Your task to perform on an android device: Go to Amazon Image 0: 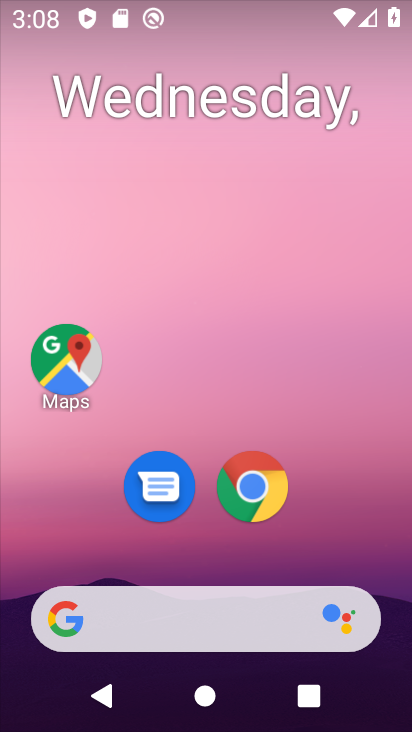
Step 0: click (260, 497)
Your task to perform on an android device: Go to Amazon Image 1: 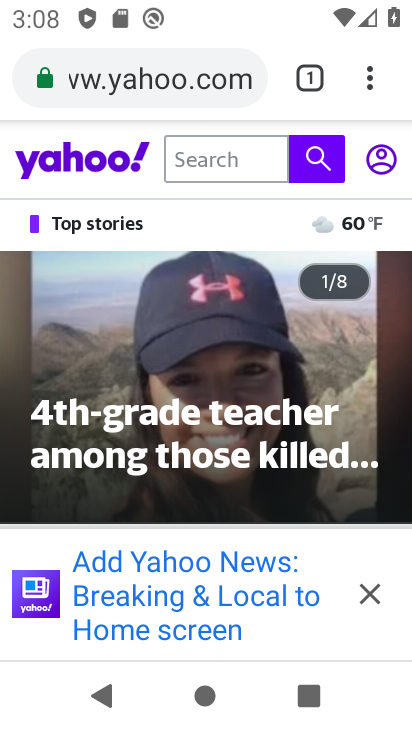
Step 1: click (308, 80)
Your task to perform on an android device: Go to Amazon Image 2: 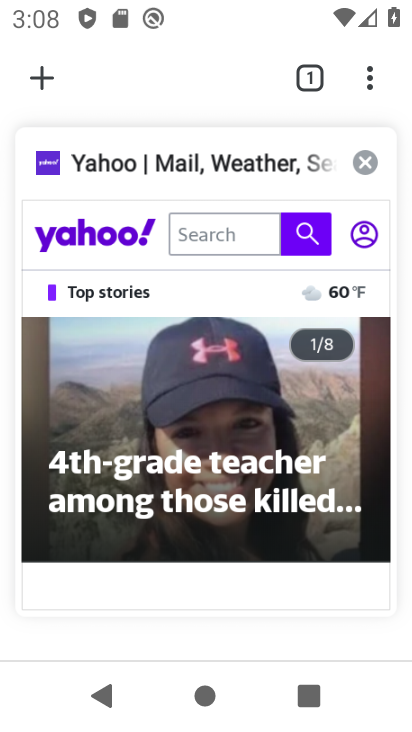
Step 2: click (364, 165)
Your task to perform on an android device: Go to Amazon Image 3: 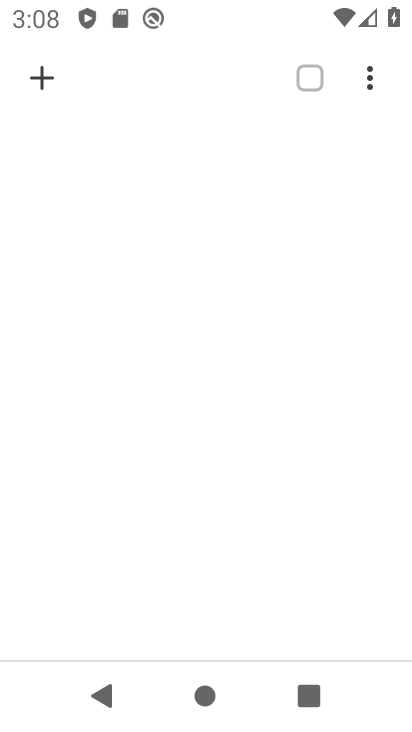
Step 3: click (36, 80)
Your task to perform on an android device: Go to Amazon Image 4: 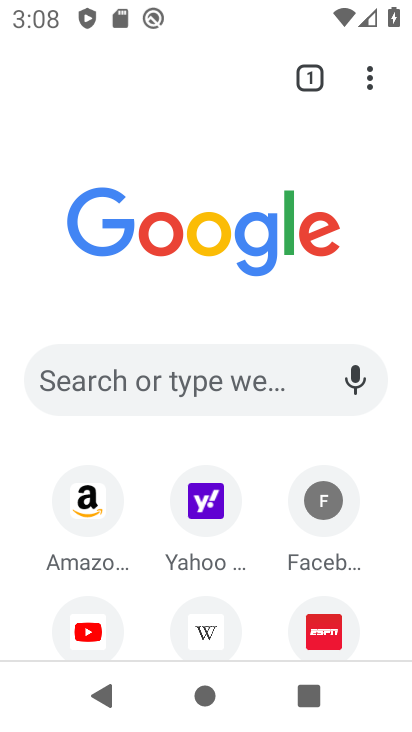
Step 4: click (87, 504)
Your task to perform on an android device: Go to Amazon Image 5: 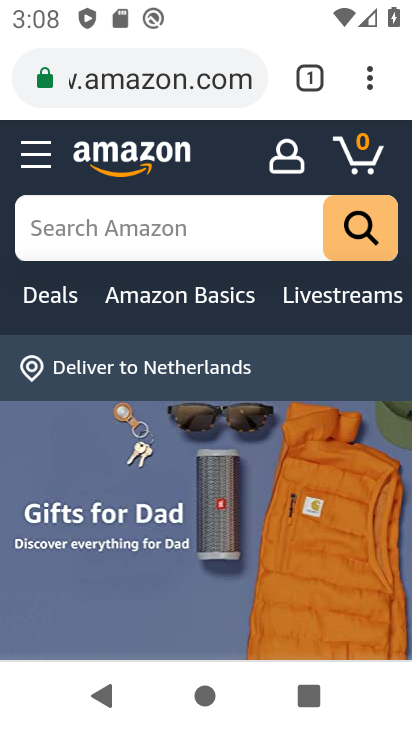
Step 5: task complete